Your task to perform on an android device: turn notification dots on Image 0: 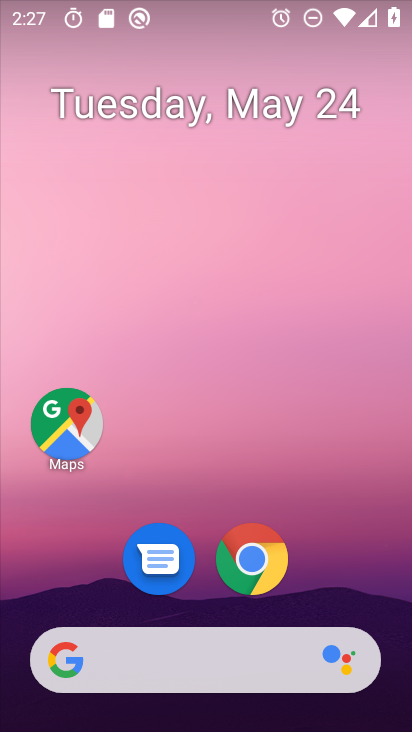
Step 0: drag from (400, 699) to (410, 108)
Your task to perform on an android device: turn notification dots on Image 1: 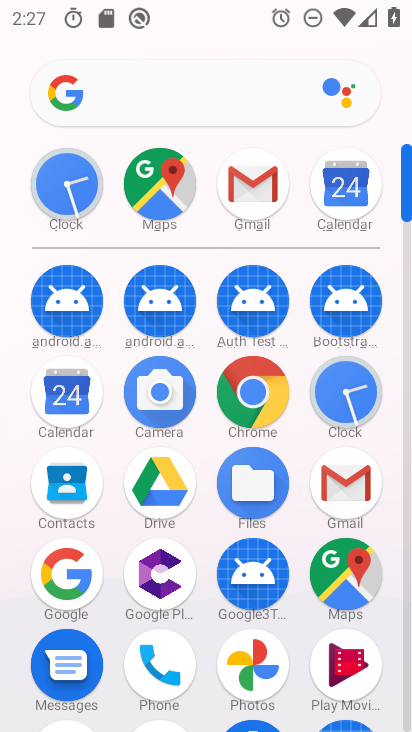
Step 1: drag from (403, 157) to (402, 57)
Your task to perform on an android device: turn notification dots on Image 2: 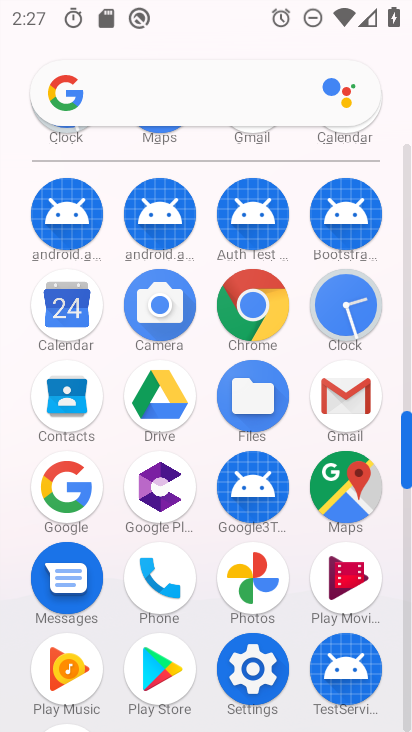
Step 2: click (238, 667)
Your task to perform on an android device: turn notification dots on Image 3: 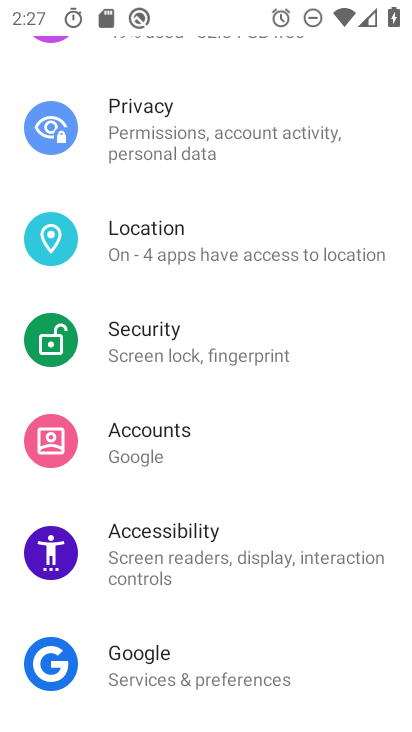
Step 3: drag from (313, 103) to (330, 458)
Your task to perform on an android device: turn notification dots on Image 4: 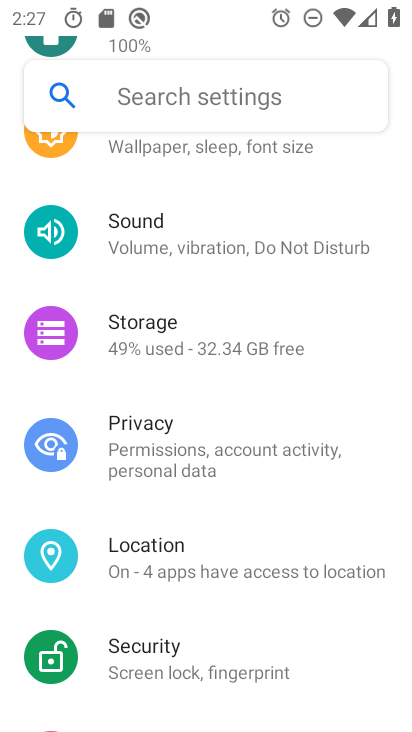
Step 4: drag from (329, 222) to (324, 579)
Your task to perform on an android device: turn notification dots on Image 5: 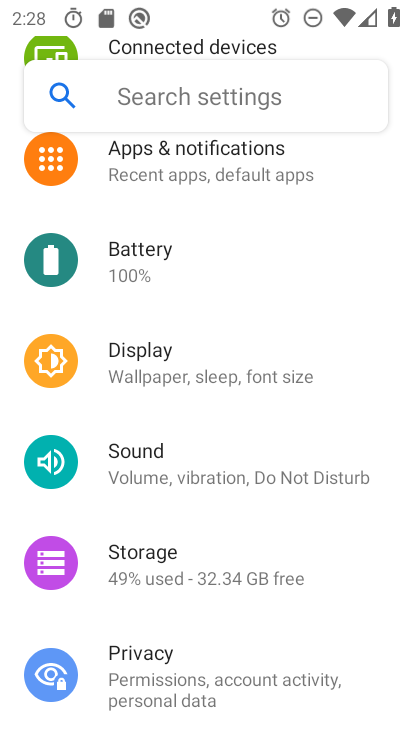
Step 5: drag from (345, 206) to (344, 605)
Your task to perform on an android device: turn notification dots on Image 6: 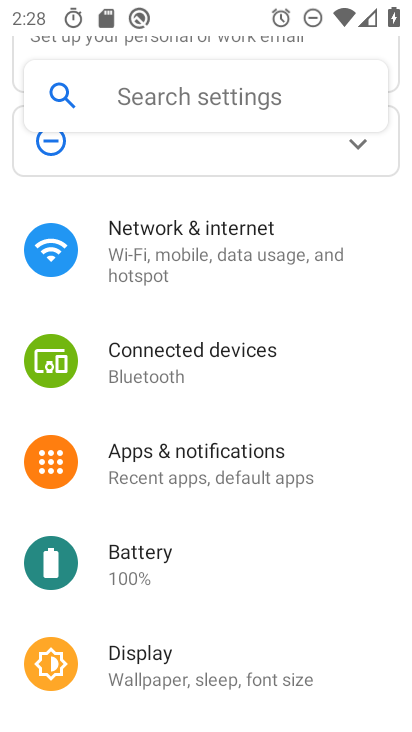
Step 6: click (148, 441)
Your task to perform on an android device: turn notification dots on Image 7: 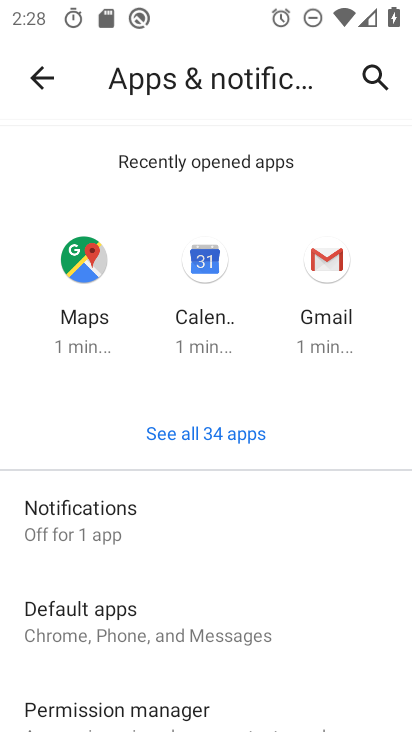
Step 7: click (63, 509)
Your task to perform on an android device: turn notification dots on Image 8: 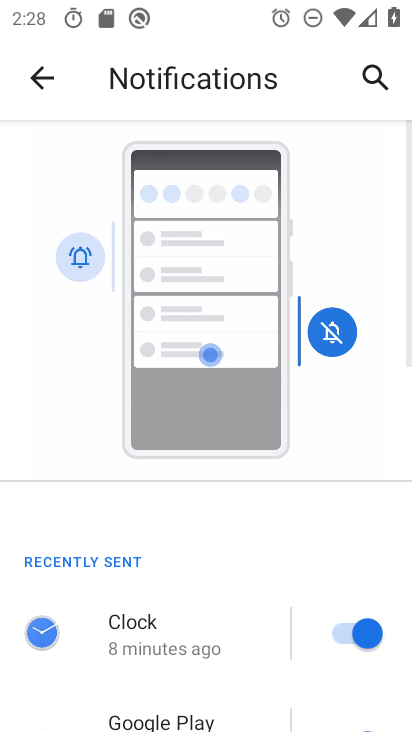
Step 8: drag from (263, 700) to (301, 273)
Your task to perform on an android device: turn notification dots on Image 9: 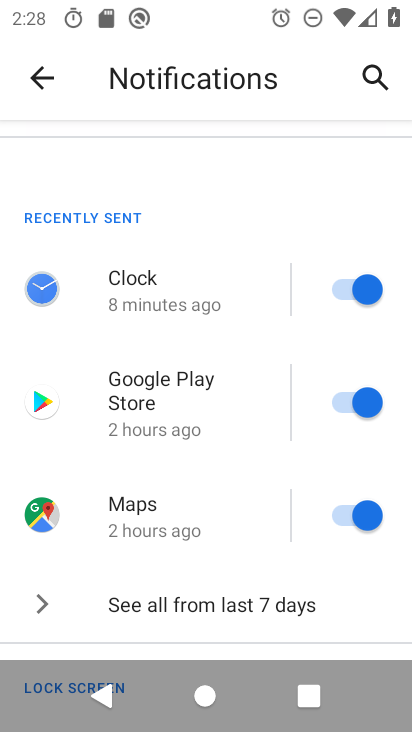
Step 9: drag from (257, 643) to (298, 242)
Your task to perform on an android device: turn notification dots on Image 10: 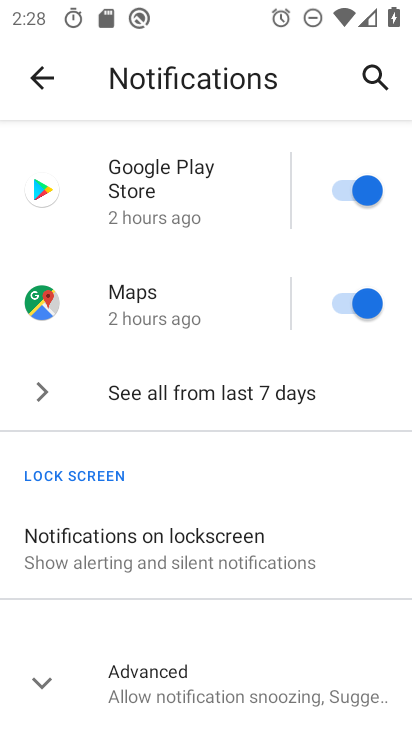
Step 10: drag from (279, 648) to (289, 348)
Your task to perform on an android device: turn notification dots on Image 11: 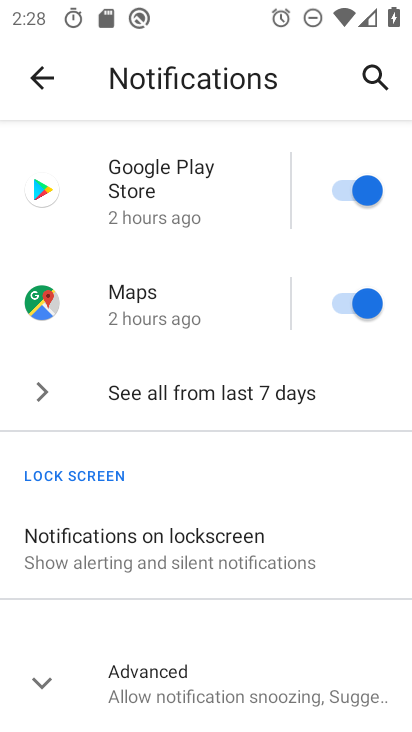
Step 11: click (48, 682)
Your task to perform on an android device: turn notification dots on Image 12: 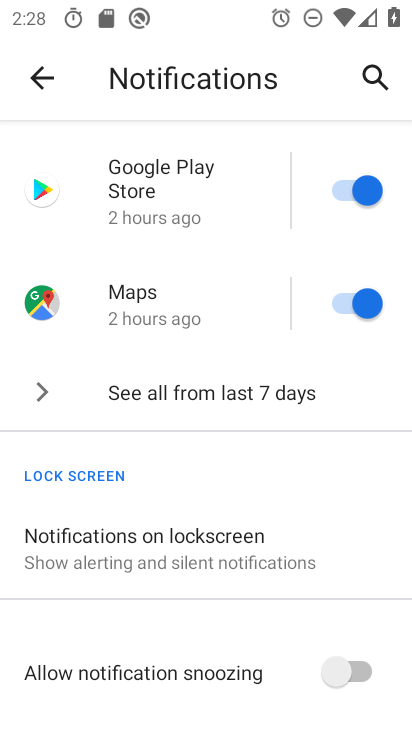
Step 12: task complete